Your task to perform on an android device: Open Maps and search for coffee Image 0: 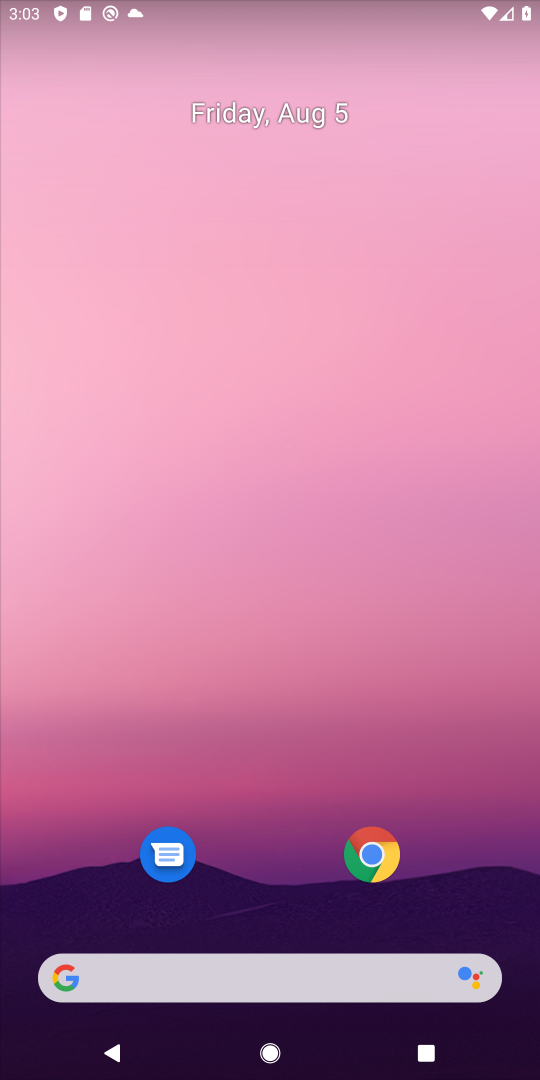
Step 0: drag from (55, 1043) to (219, 675)
Your task to perform on an android device: Open Maps and search for coffee Image 1: 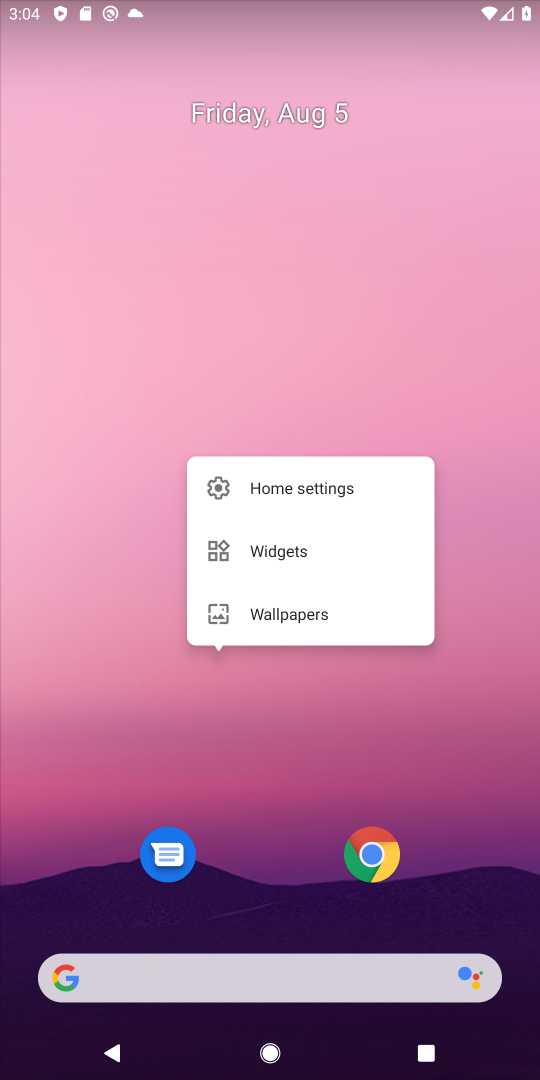
Step 1: drag from (44, 1048) to (449, 26)
Your task to perform on an android device: Open Maps and search for coffee Image 2: 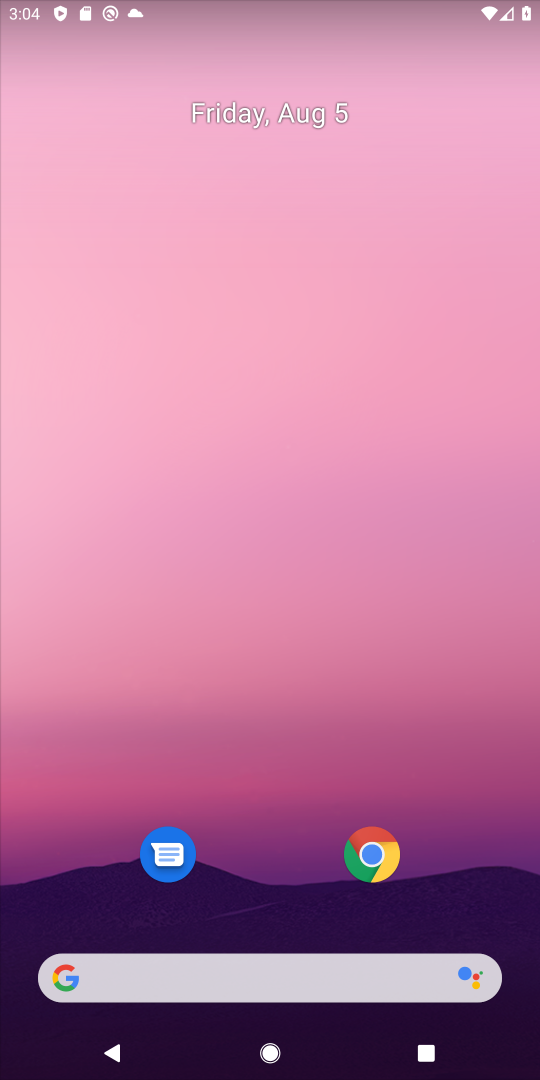
Step 2: click (74, 1049)
Your task to perform on an android device: Open Maps and search for coffee Image 3: 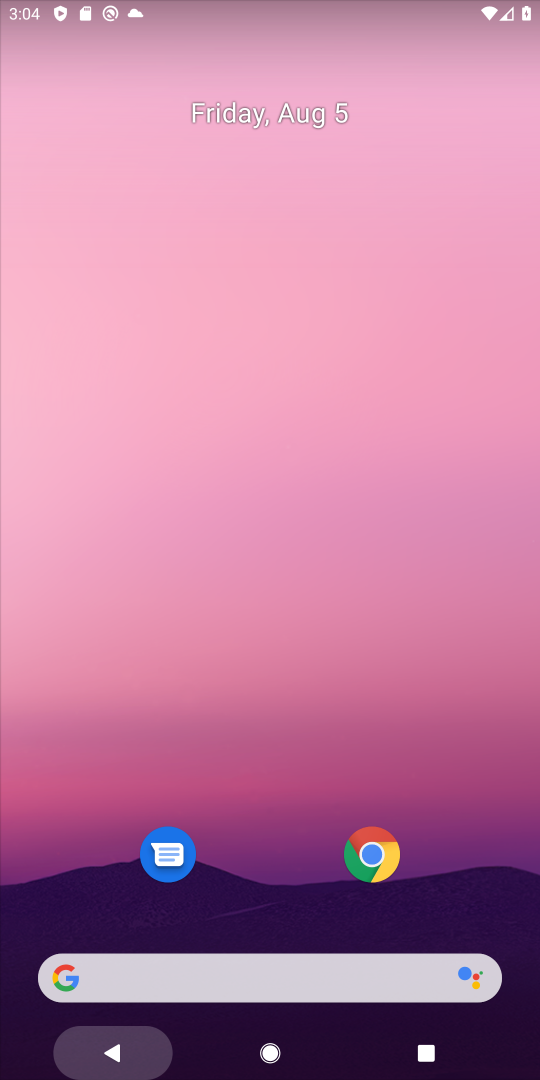
Step 3: drag from (74, 1049) to (263, 453)
Your task to perform on an android device: Open Maps and search for coffee Image 4: 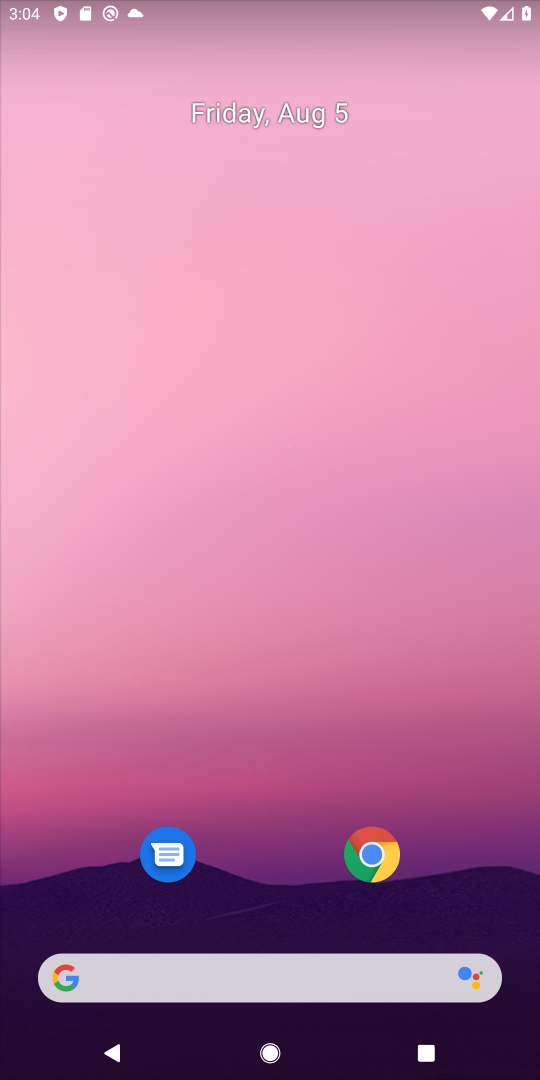
Step 4: click (62, 1019)
Your task to perform on an android device: Open Maps and search for coffee Image 5: 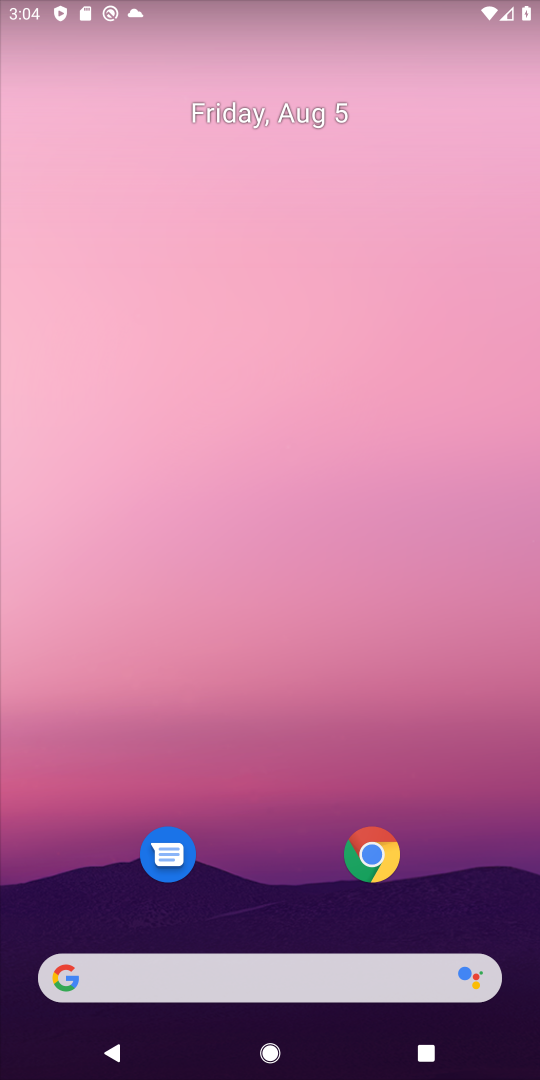
Step 5: drag from (62, 1019) to (390, 251)
Your task to perform on an android device: Open Maps and search for coffee Image 6: 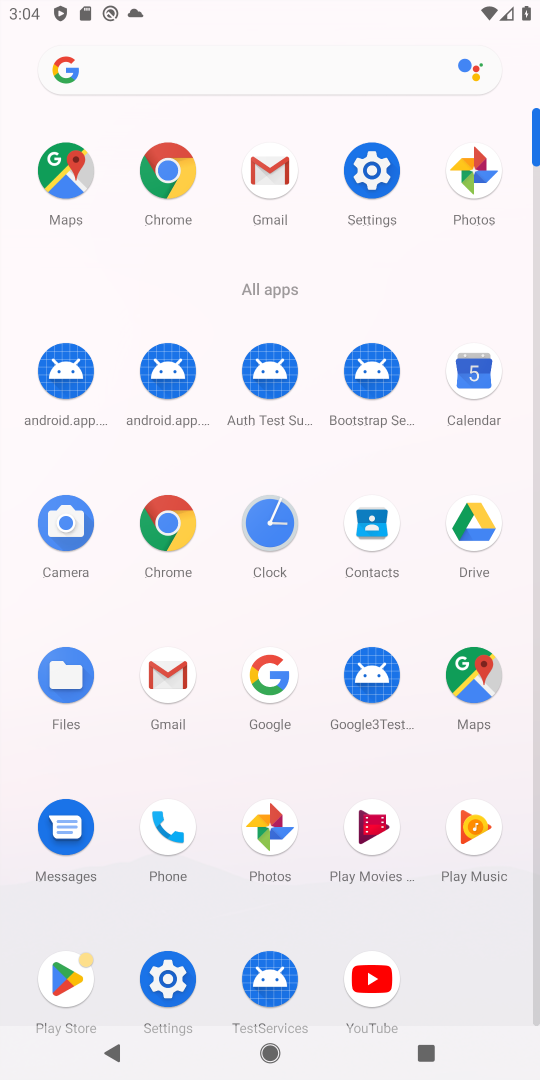
Step 6: click (468, 682)
Your task to perform on an android device: Open Maps and search for coffee Image 7: 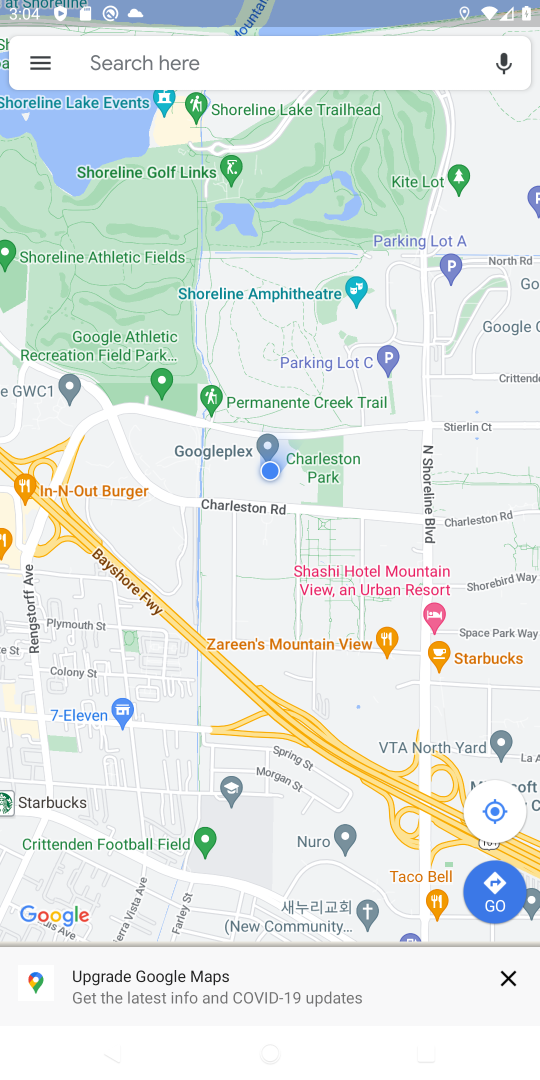
Step 7: click (126, 65)
Your task to perform on an android device: Open Maps and search for coffee Image 8: 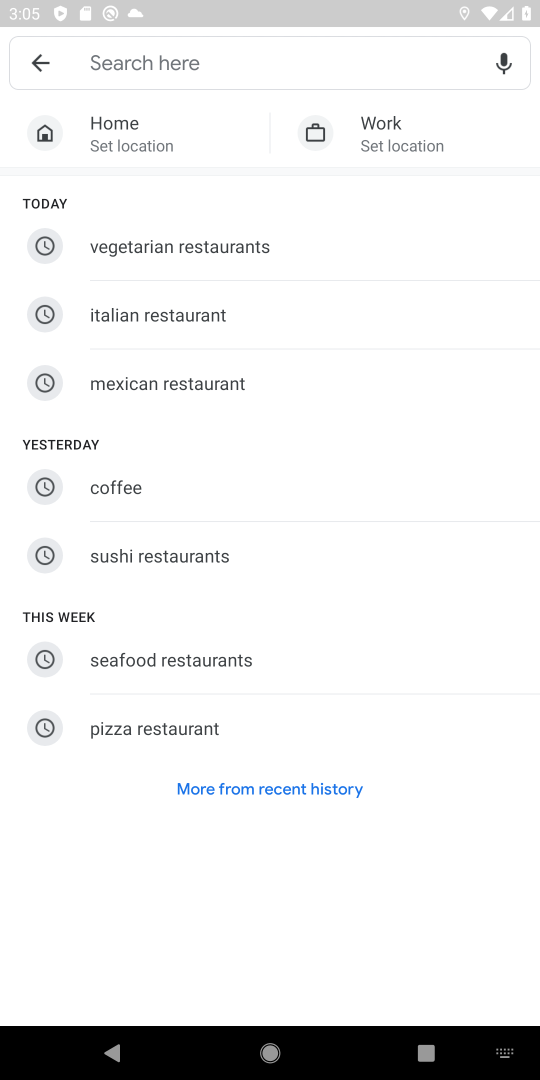
Step 8: click (124, 488)
Your task to perform on an android device: Open Maps and search for coffee Image 9: 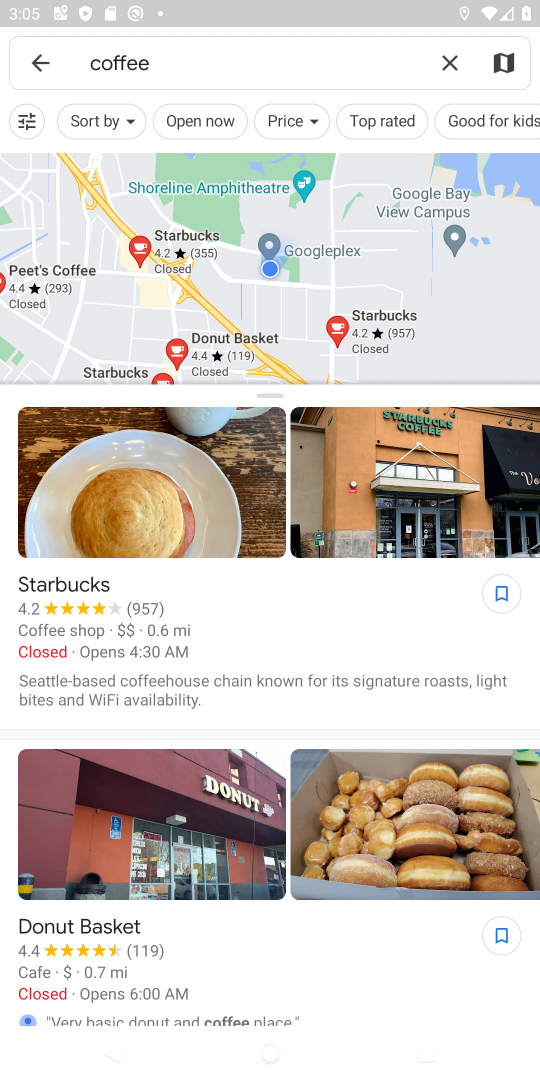
Step 9: task complete